Your task to perform on an android device: see sites visited before in the chrome app Image 0: 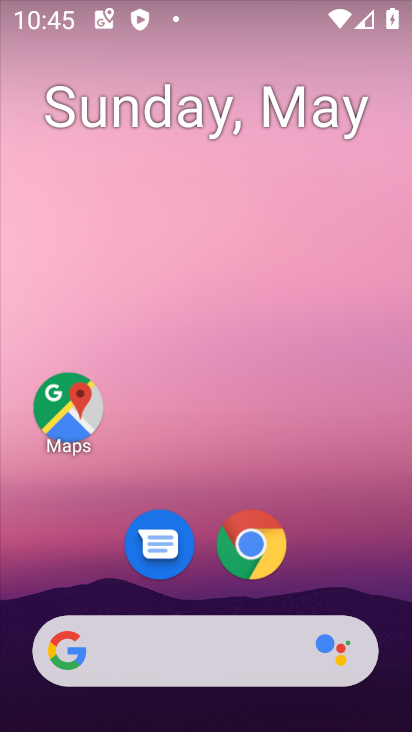
Step 0: drag from (362, 455) to (410, 2)
Your task to perform on an android device: see sites visited before in the chrome app Image 1: 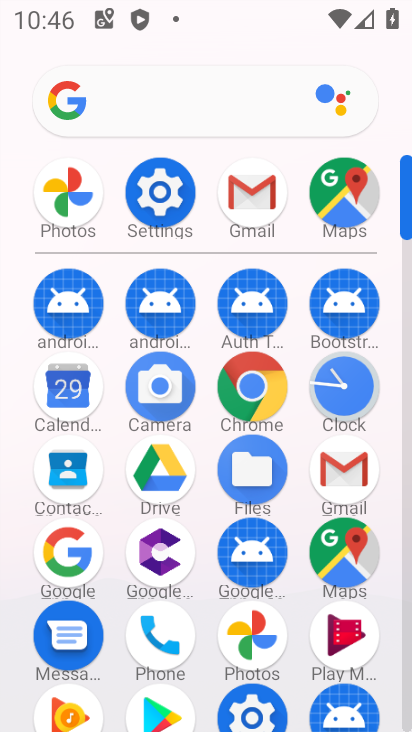
Step 1: click (272, 393)
Your task to perform on an android device: see sites visited before in the chrome app Image 2: 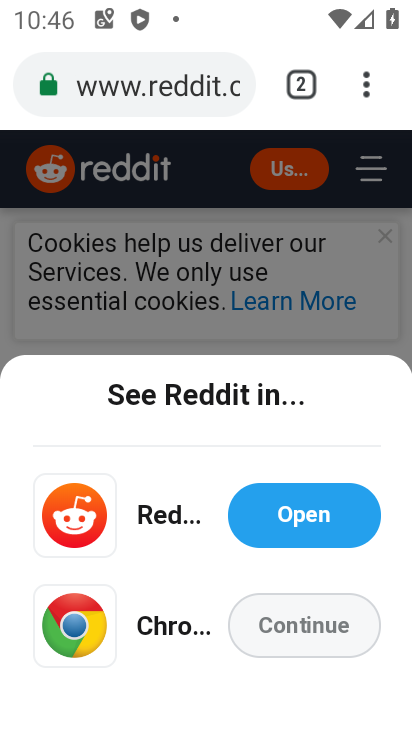
Step 2: task complete